Your task to perform on an android device: Play the last video I watched on Youtube Image 0: 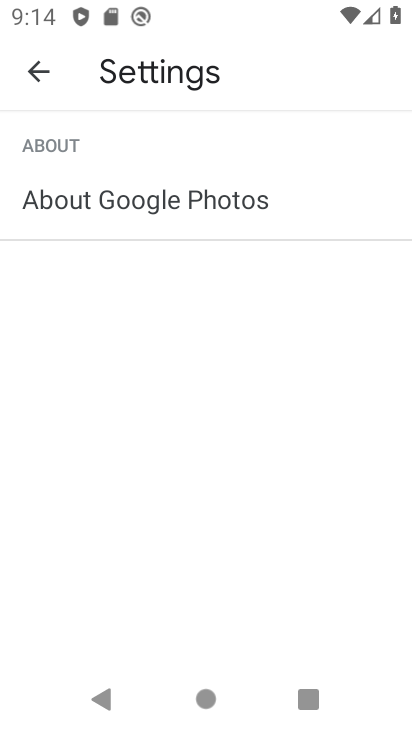
Step 0: press home button
Your task to perform on an android device: Play the last video I watched on Youtube Image 1: 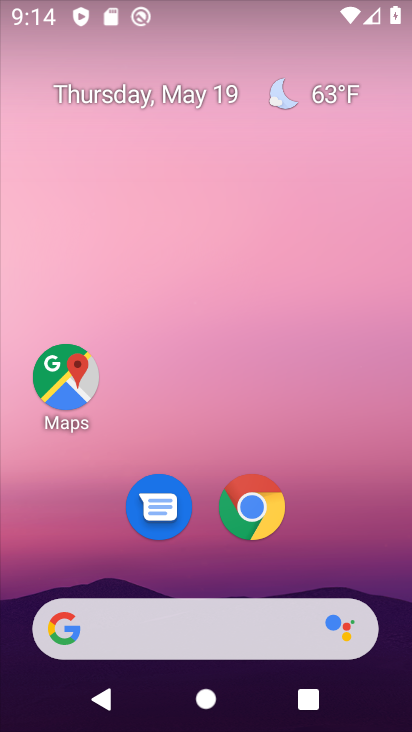
Step 1: drag from (365, 546) to (353, 161)
Your task to perform on an android device: Play the last video I watched on Youtube Image 2: 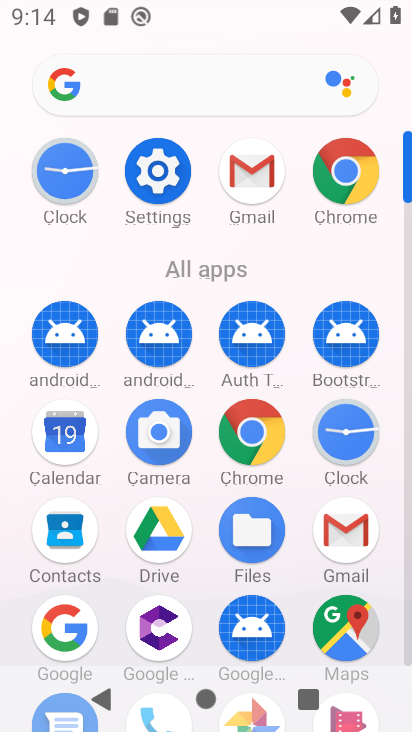
Step 2: click (408, 657)
Your task to perform on an android device: Play the last video I watched on Youtube Image 3: 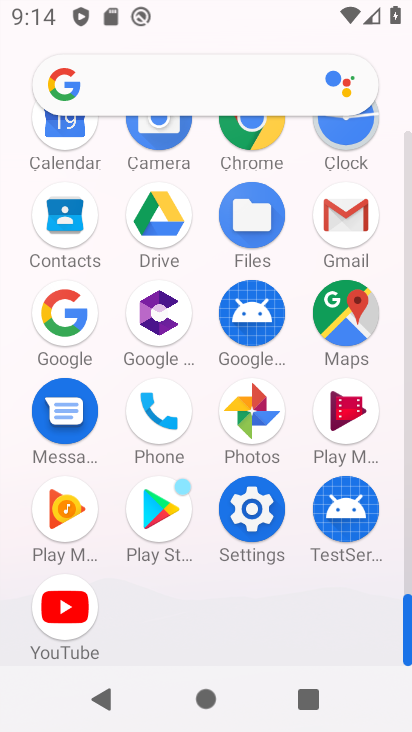
Step 3: click (57, 614)
Your task to perform on an android device: Play the last video I watched on Youtube Image 4: 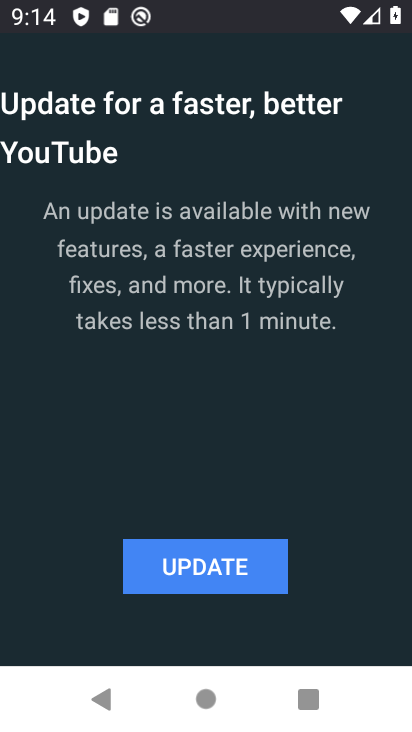
Step 4: click (185, 582)
Your task to perform on an android device: Play the last video I watched on Youtube Image 5: 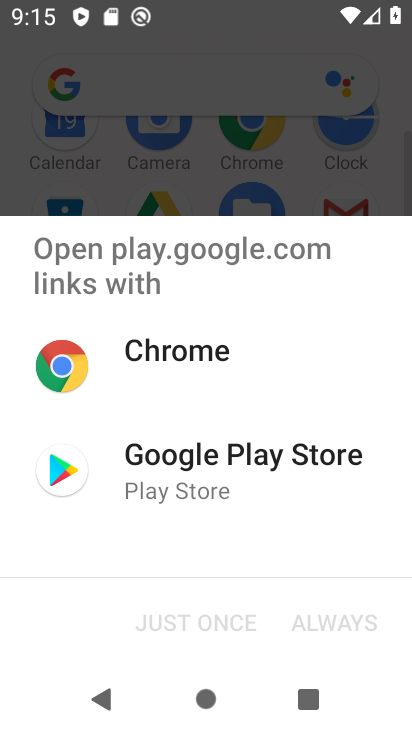
Step 5: click (206, 493)
Your task to perform on an android device: Play the last video I watched on Youtube Image 6: 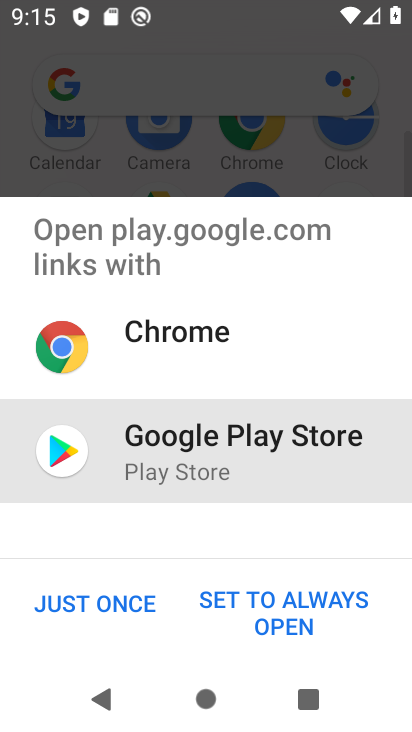
Step 6: click (130, 596)
Your task to perform on an android device: Play the last video I watched on Youtube Image 7: 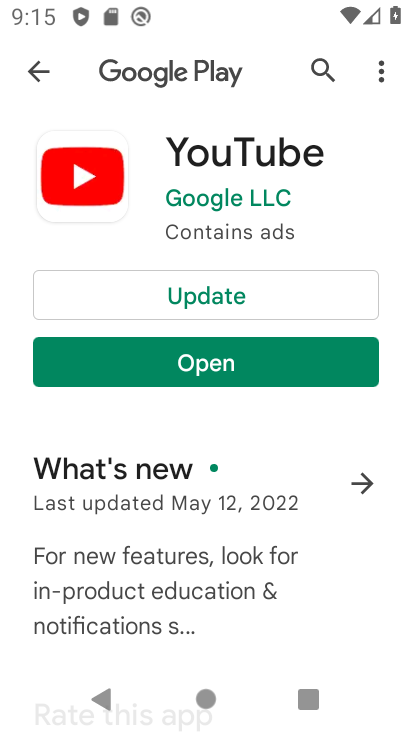
Step 7: click (228, 294)
Your task to perform on an android device: Play the last video I watched on Youtube Image 8: 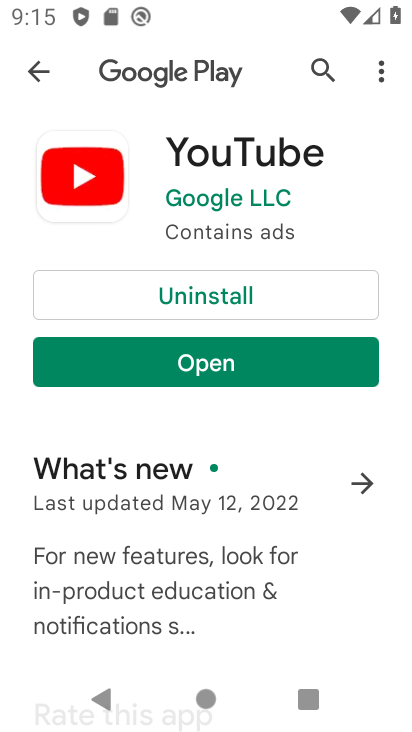
Step 8: click (233, 353)
Your task to perform on an android device: Play the last video I watched on Youtube Image 9: 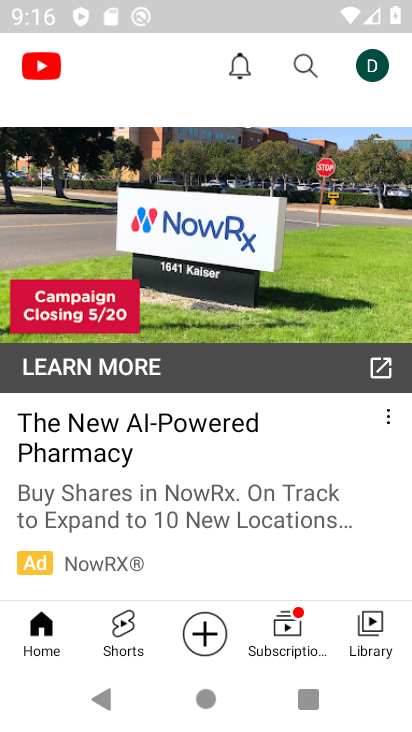
Step 9: click (371, 638)
Your task to perform on an android device: Play the last video I watched on Youtube Image 10: 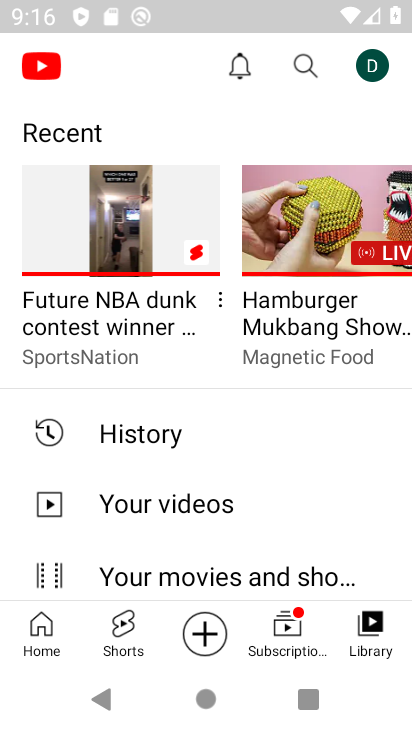
Step 10: click (193, 199)
Your task to perform on an android device: Play the last video I watched on Youtube Image 11: 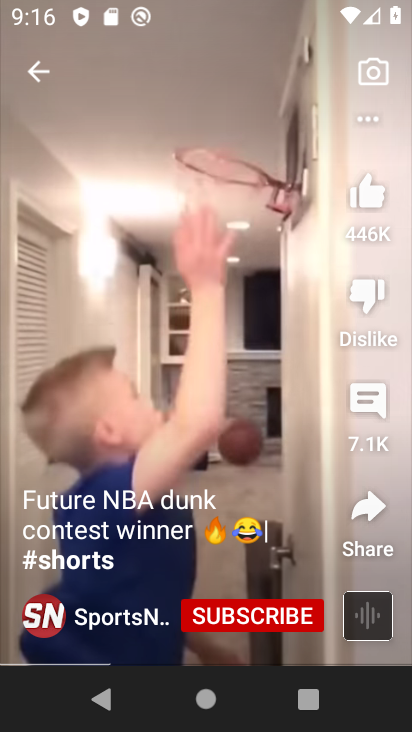
Step 11: task complete